Your task to perform on an android device: turn off wifi Image 0: 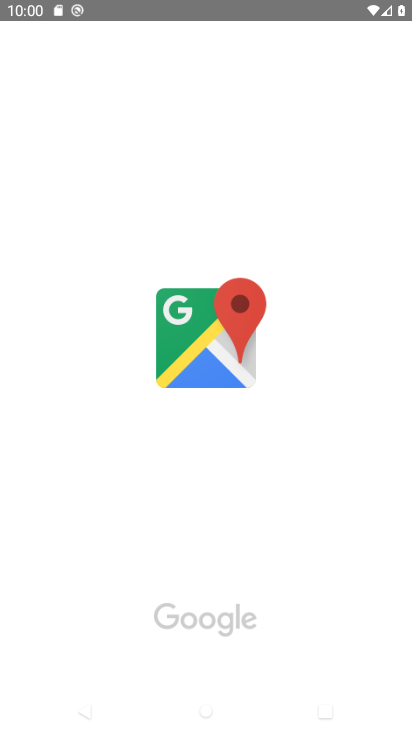
Step 0: press home button
Your task to perform on an android device: turn off wifi Image 1: 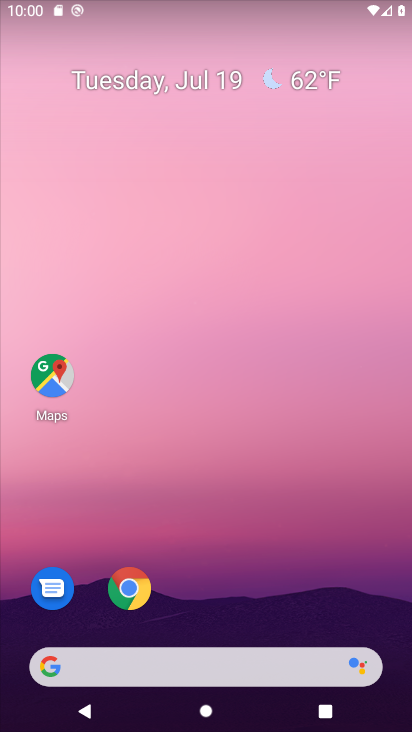
Step 1: drag from (197, 387) to (208, 109)
Your task to perform on an android device: turn off wifi Image 2: 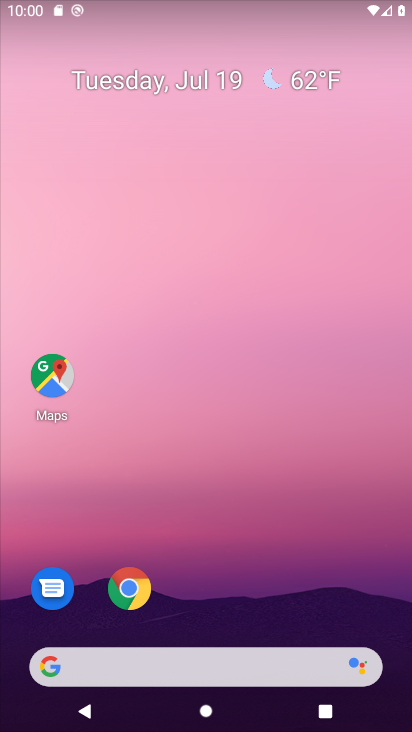
Step 2: drag from (199, 543) to (239, 103)
Your task to perform on an android device: turn off wifi Image 3: 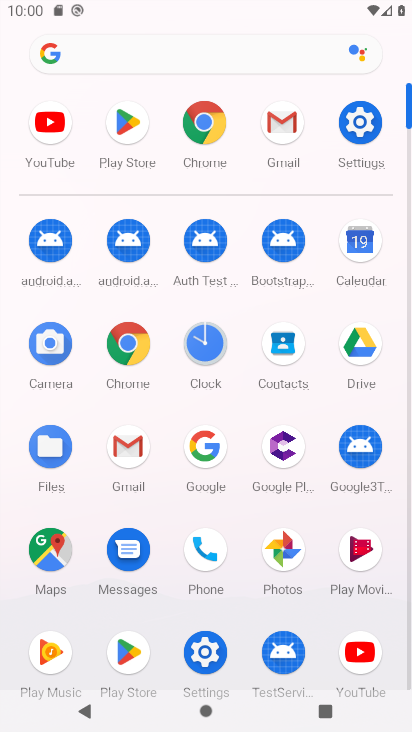
Step 3: click (359, 130)
Your task to perform on an android device: turn off wifi Image 4: 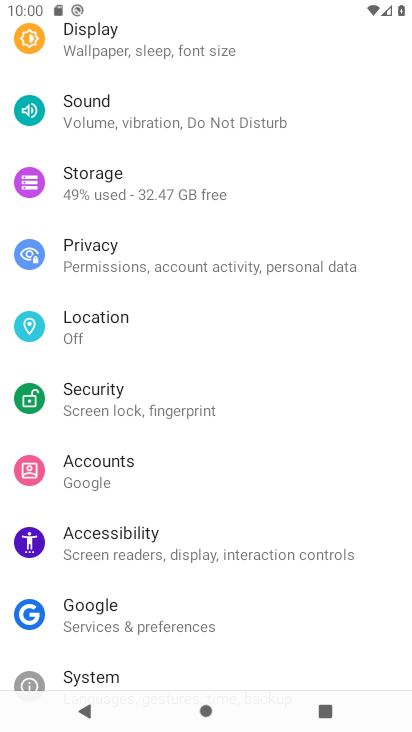
Step 4: drag from (197, 337) to (170, 539)
Your task to perform on an android device: turn off wifi Image 5: 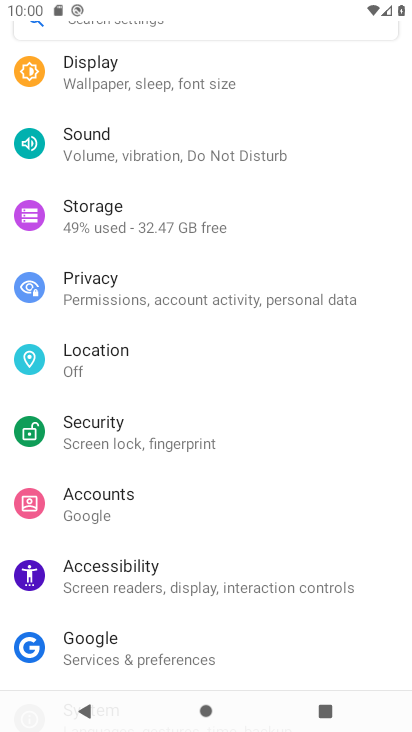
Step 5: drag from (216, 250) to (169, 601)
Your task to perform on an android device: turn off wifi Image 6: 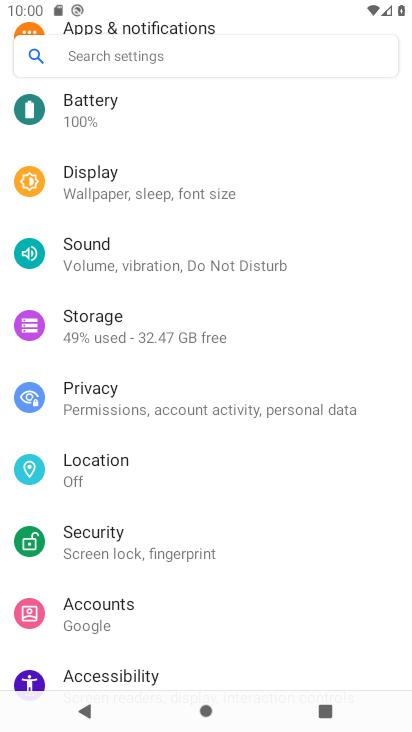
Step 6: drag from (209, 264) to (173, 573)
Your task to perform on an android device: turn off wifi Image 7: 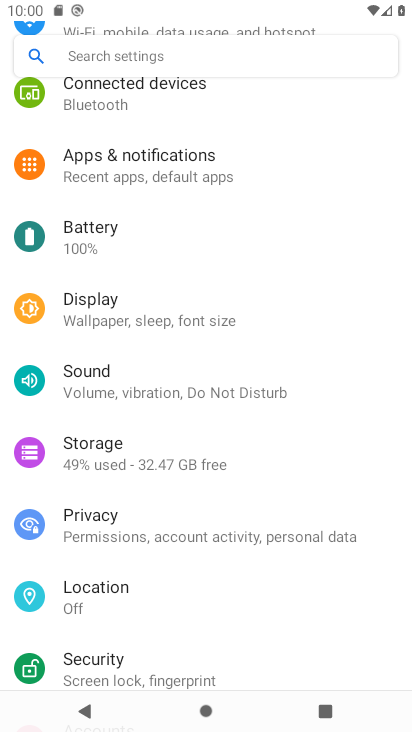
Step 7: drag from (190, 238) to (170, 477)
Your task to perform on an android device: turn off wifi Image 8: 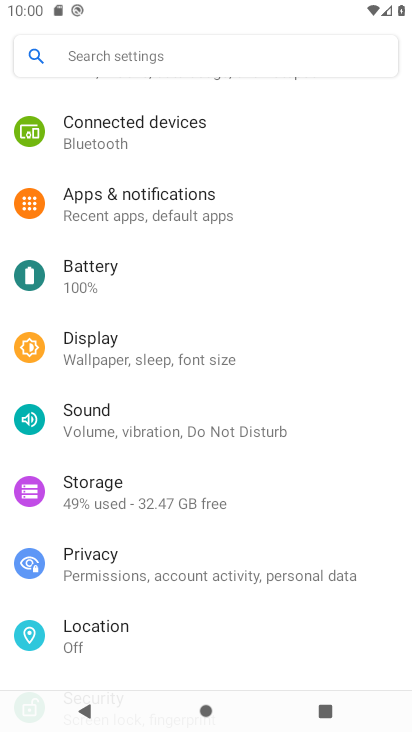
Step 8: drag from (190, 95) to (181, 376)
Your task to perform on an android device: turn off wifi Image 9: 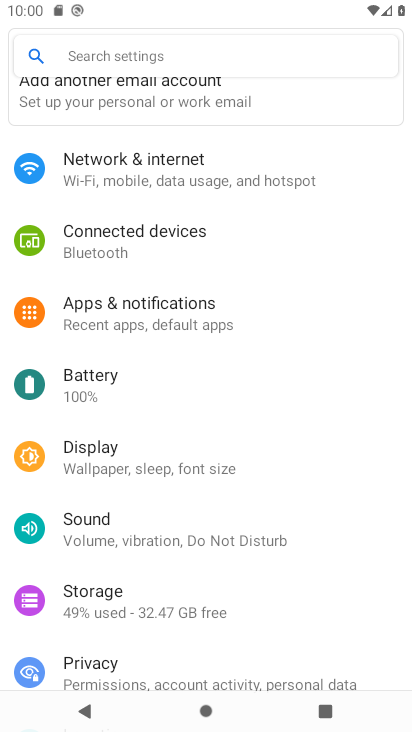
Step 9: click (180, 181)
Your task to perform on an android device: turn off wifi Image 10: 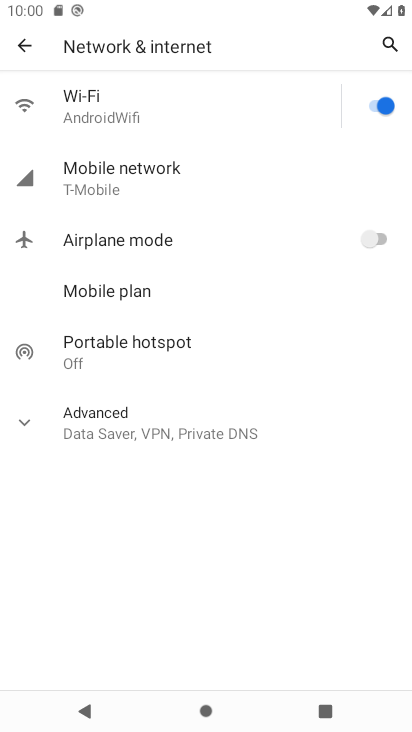
Step 10: click (369, 116)
Your task to perform on an android device: turn off wifi Image 11: 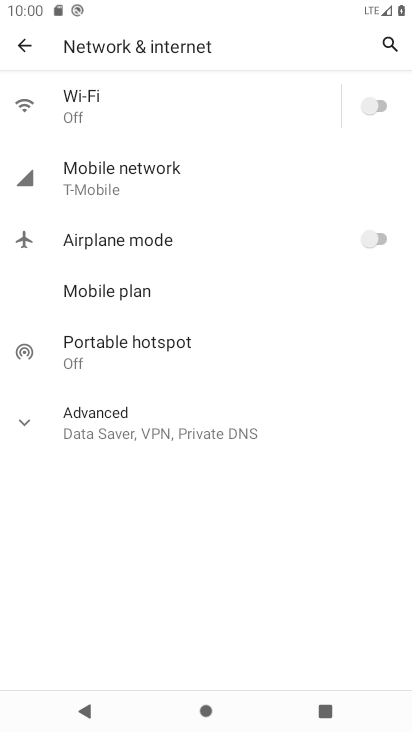
Step 11: task complete